Your task to perform on an android device: open the mobile data screen to see how much data has been used Image 0: 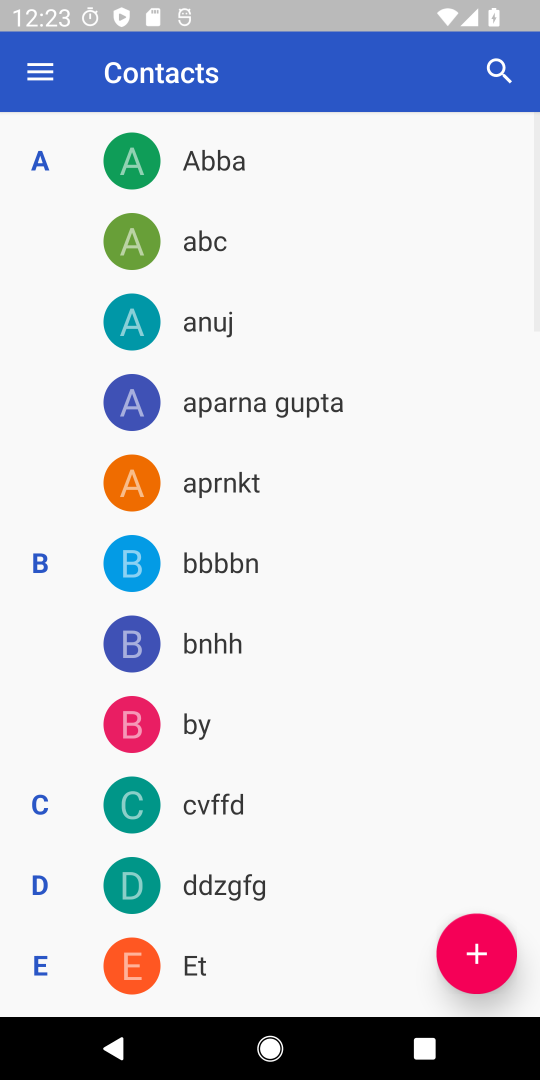
Step 0: press home button
Your task to perform on an android device: open the mobile data screen to see how much data has been used Image 1: 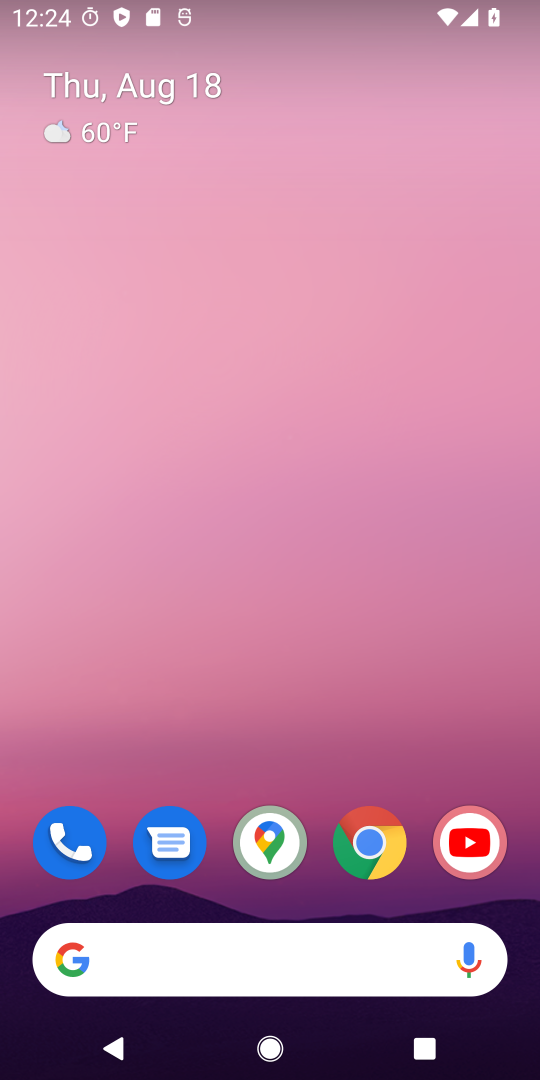
Step 1: drag from (249, 12) to (306, 657)
Your task to perform on an android device: open the mobile data screen to see how much data has been used Image 2: 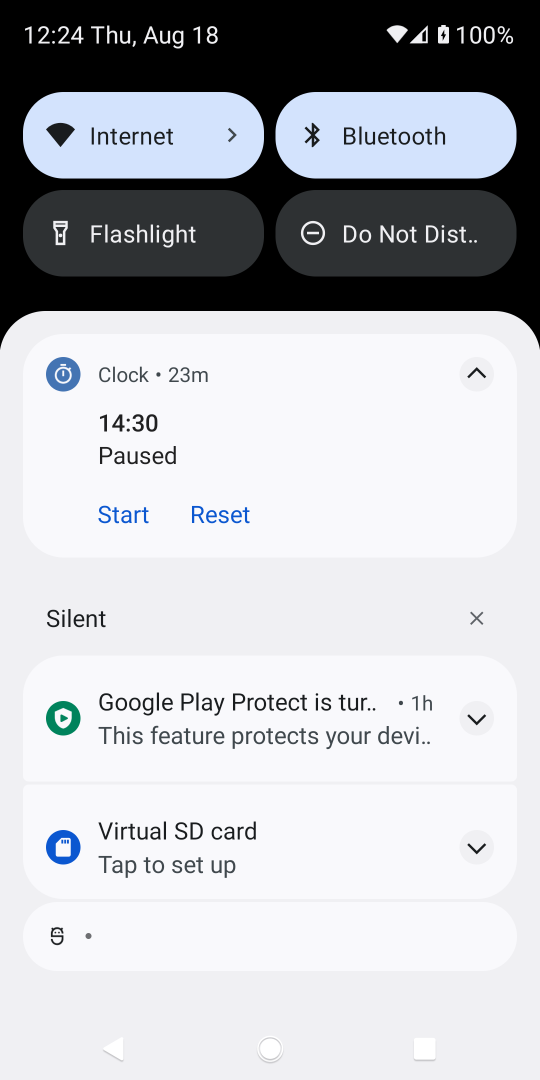
Step 2: click (219, 131)
Your task to perform on an android device: open the mobile data screen to see how much data has been used Image 3: 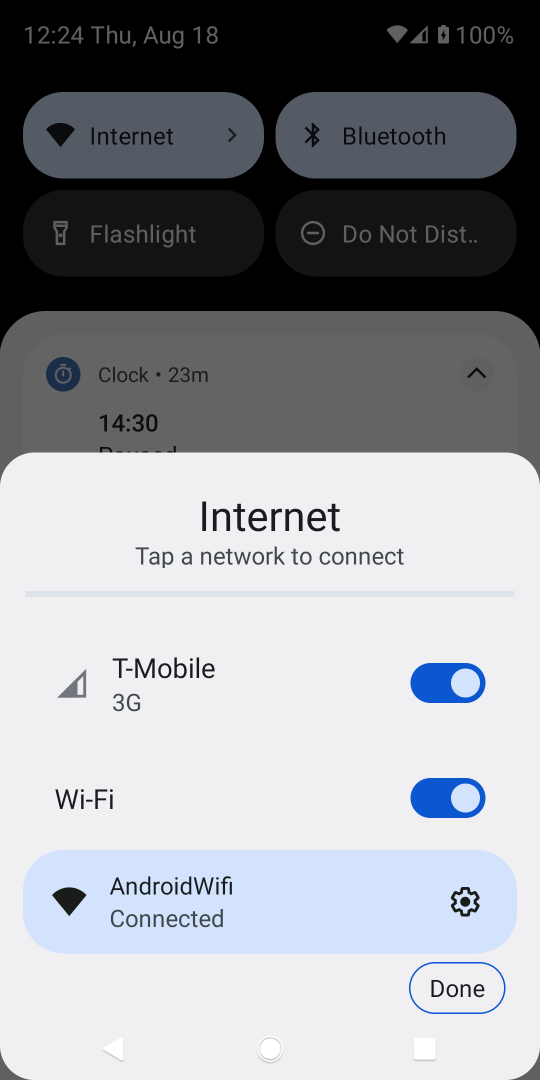
Step 3: click (473, 891)
Your task to perform on an android device: open the mobile data screen to see how much data has been used Image 4: 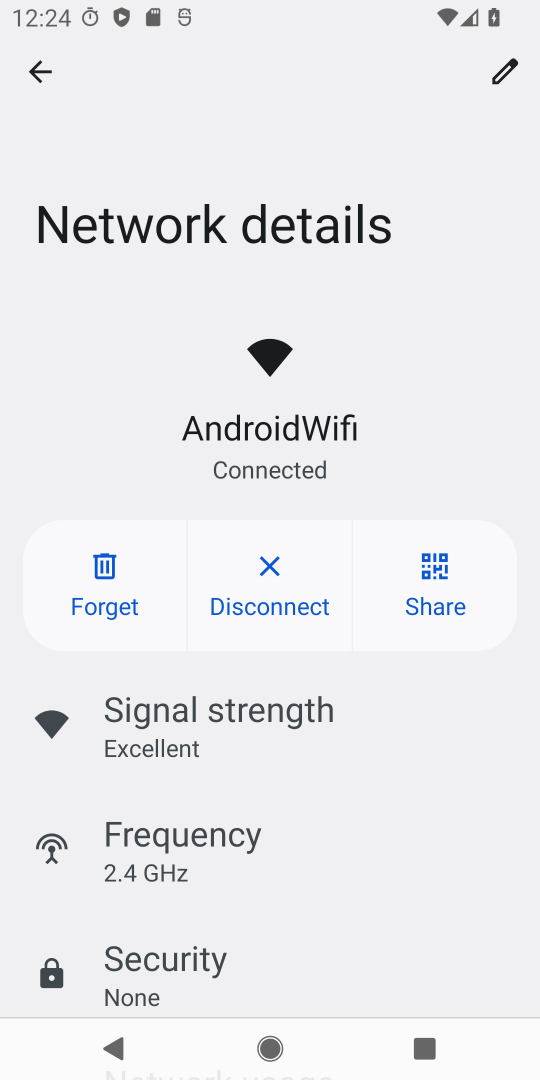
Step 4: task complete